Your task to perform on an android device: open wifi settings Image 0: 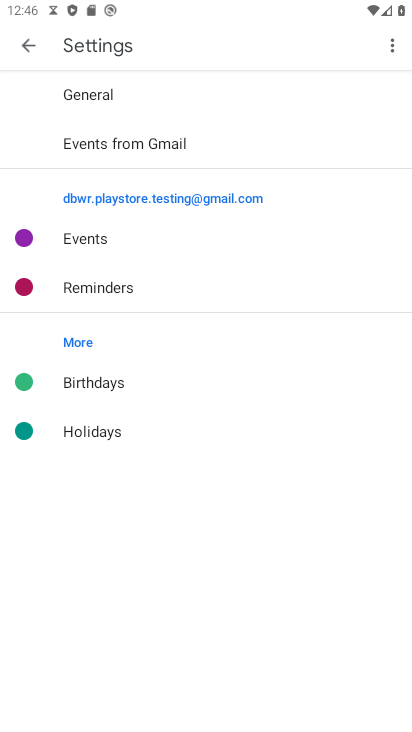
Step 0: drag from (166, 683) to (174, 99)
Your task to perform on an android device: open wifi settings Image 1: 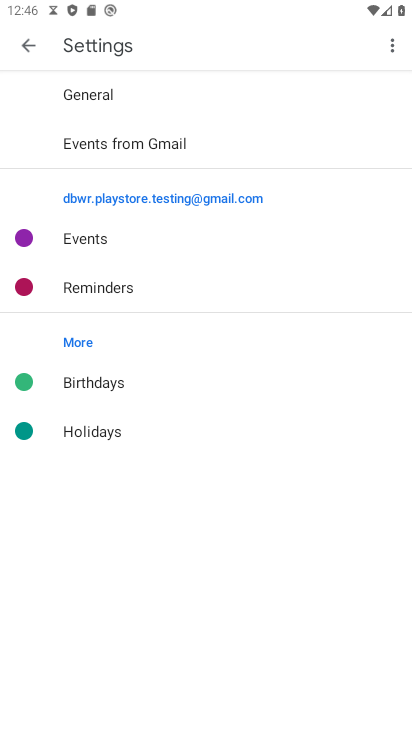
Step 1: press home button
Your task to perform on an android device: open wifi settings Image 2: 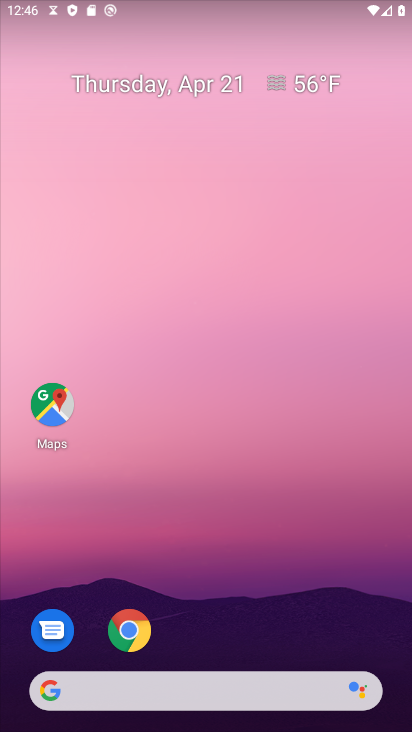
Step 2: drag from (189, 701) to (259, 2)
Your task to perform on an android device: open wifi settings Image 3: 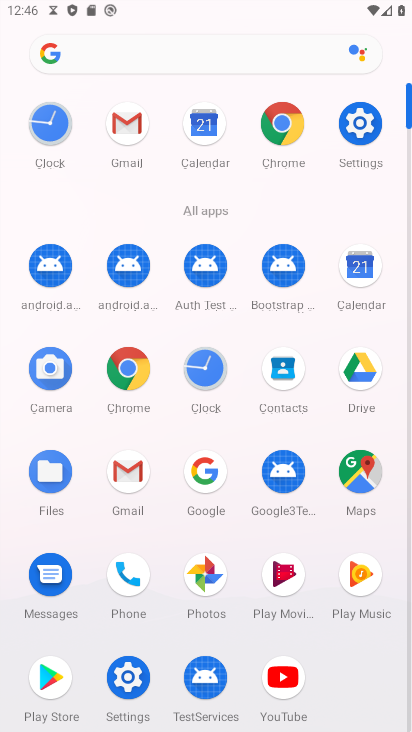
Step 3: click (356, 129)
Your task to perform on an android device: open wifi settings Image 4: 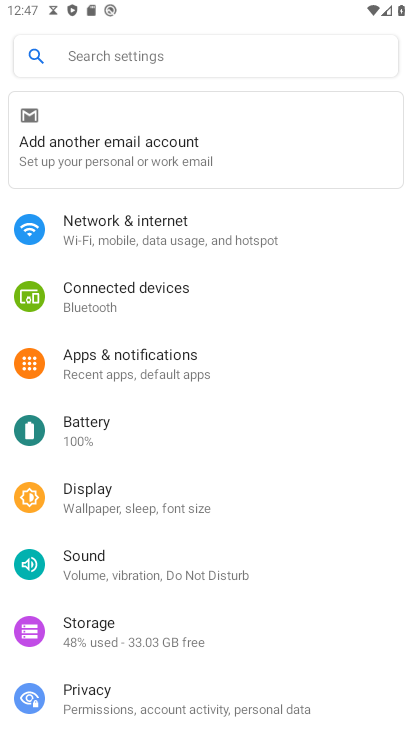
Step 4: click (124, 227)
Your task to perform on an android device: open wifi settings Image 5: 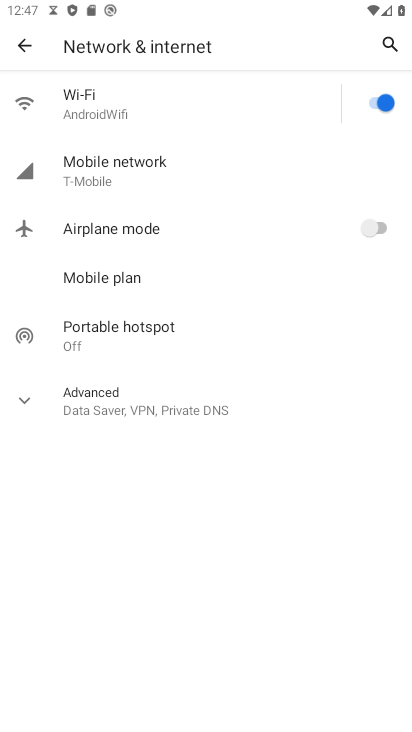
Step 5: click (103, 106)
Your task to perform on an android device: open wifi settings Image 6: 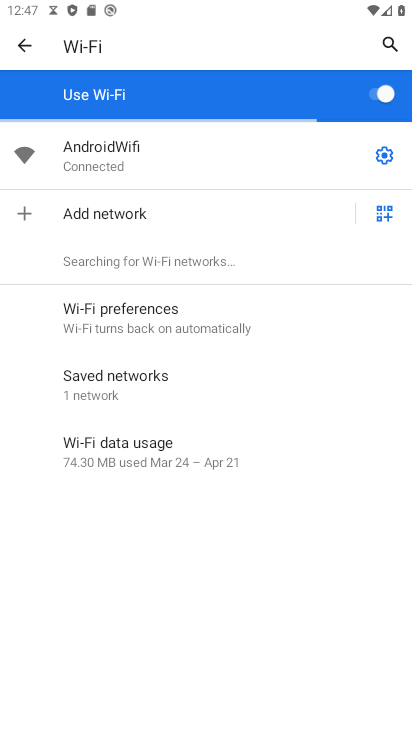
Step 6: task complete